Your task to perform on an android device: Open Chrome and go to settings Image 0: 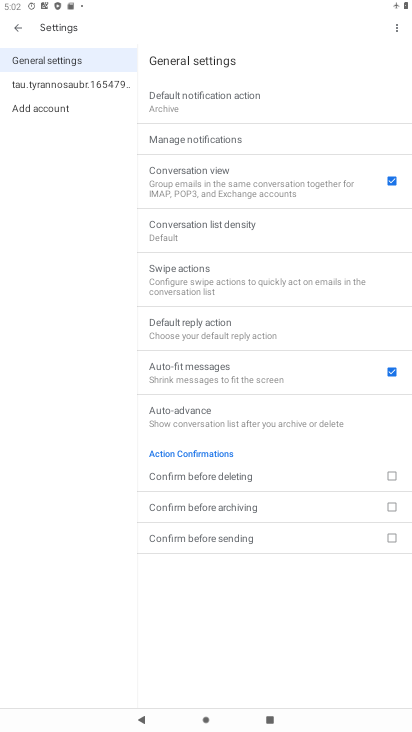
Step 0: press home button
Your task to perform on an android device: Open Chrome and go to settings Image 1: 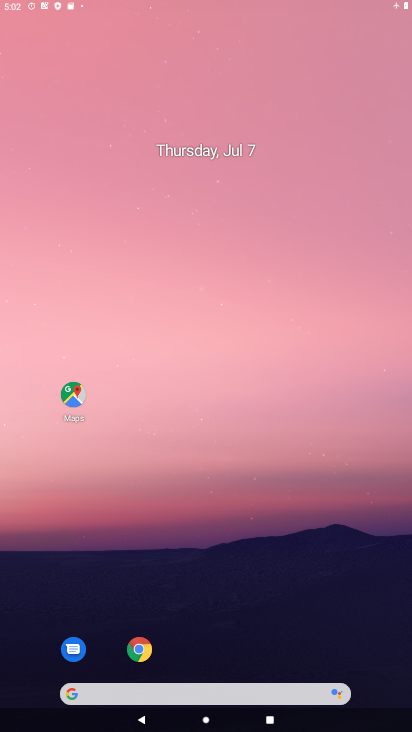
Step 1: drag from (384, 661) to (271, 7)
Your task to perform on an android device: Open Chrome and go to settings Image 2: 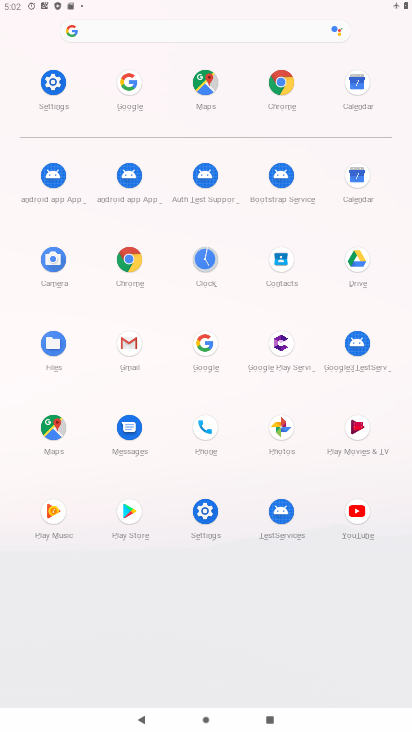
Step 2: click (279, 74)
Your task to perform on an android device: Open Chrome and go to settings Image 3: 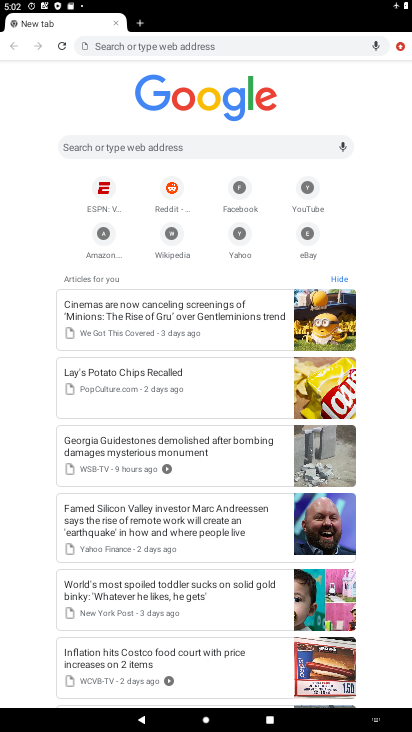
Step 3: click (394, 45)
Your task to perform on an android device: Open Chrome and go to settings Image 4: 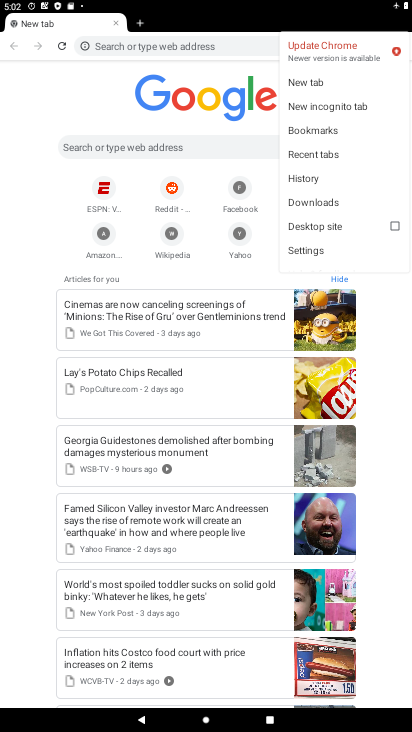
Step 4: click (319, 253)
Your task to perform on an android device: Open Chrome and go to settings Image 5: 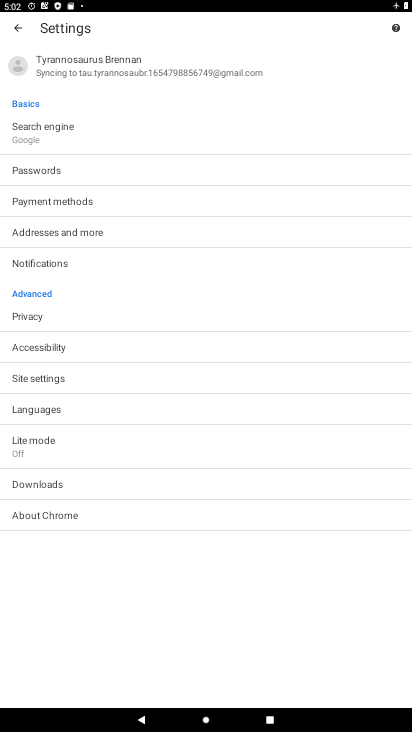
Step 5: task complete